Your task to perform on an android device: delete a single message in the gmail app Image 0: 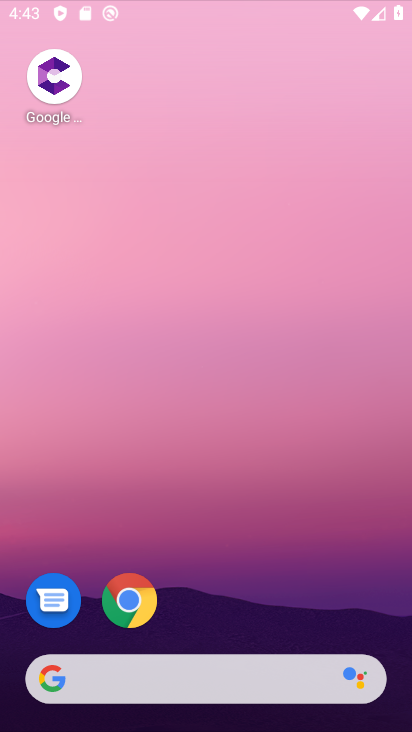
Step 0: click (65, 80)
Your task to perform on an android device: delete a single message in the gmail app Image 1: 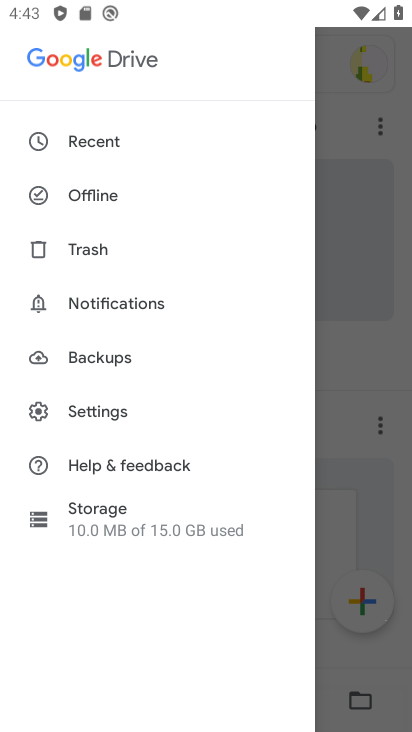
Step 1: press home button
Your task to perform on an android device: delete a single message in the gmail app Image 2: 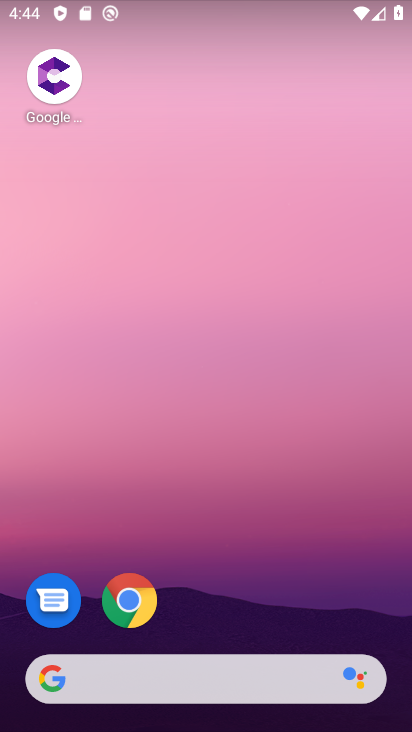
Step 2: drag from (233, 609) to (193, 55)
Your task to perform on an android device: delete a single message in the gmail app Image 3: 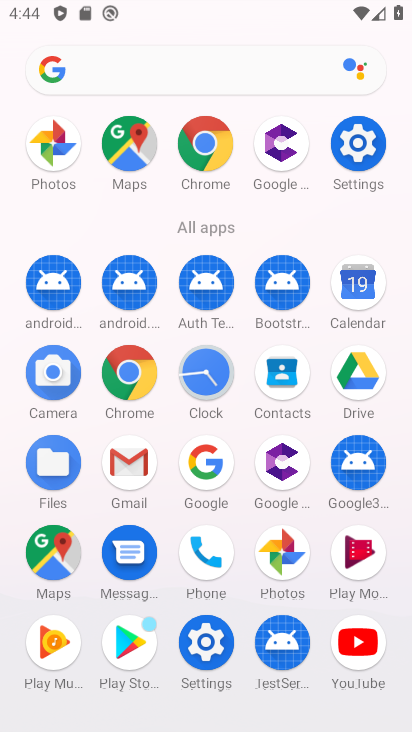
Step 3: click (129, 471)
Your task to perform on an android device: delete a single message in the gmail app Image 4: 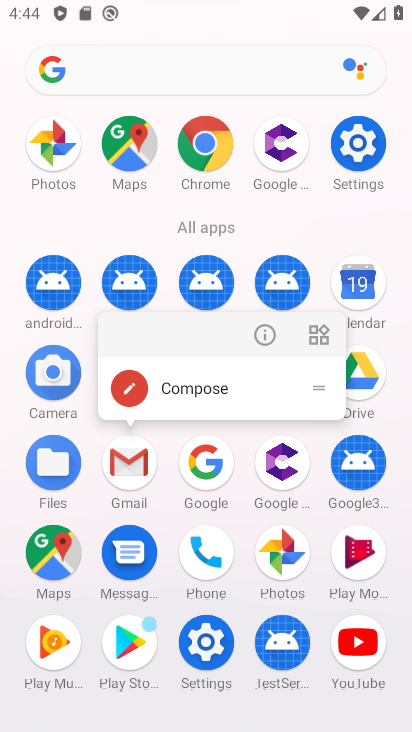
Step 4: click (128, 471)
Your task to perform on an android device: delete a single message in the gmail app Image 5: 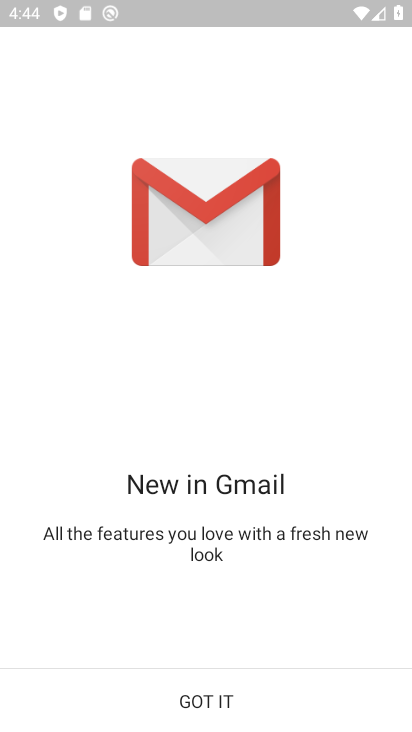
Step 5: click (172, 692)
Your task to perform on an android device: delete a single message in the gmail app Image 6: 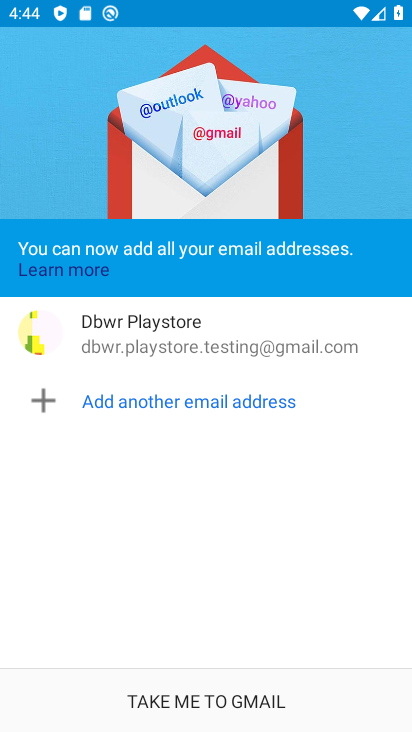
Step 6: click (191, 694)
Your task to perform on an android device: delete a single message in the gmail app Image 7: 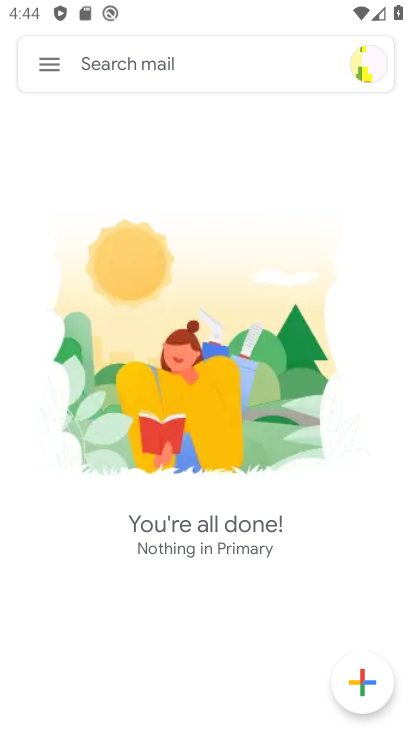
Step 7: click (49, 59)
Your task to perform on an android device: delete a single message in the gmail app Image 8: 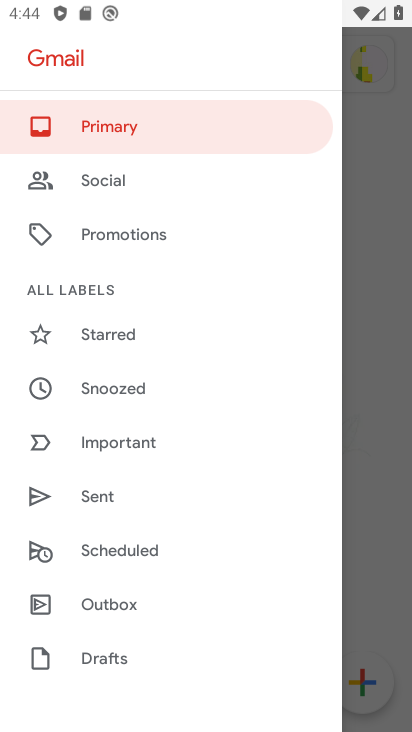
Step 8: drag from (222, 631) to (151, 133)
Your task to perform on an android device: delete a single message in the gmail app Image 9: 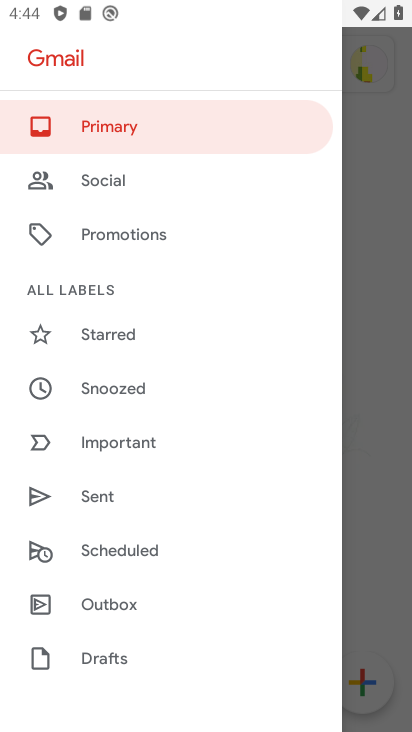
Step 9: drag from (132, 641) to (46, 96)
Your task to perform on an android device: delete a single message in the gmail app Image 10: 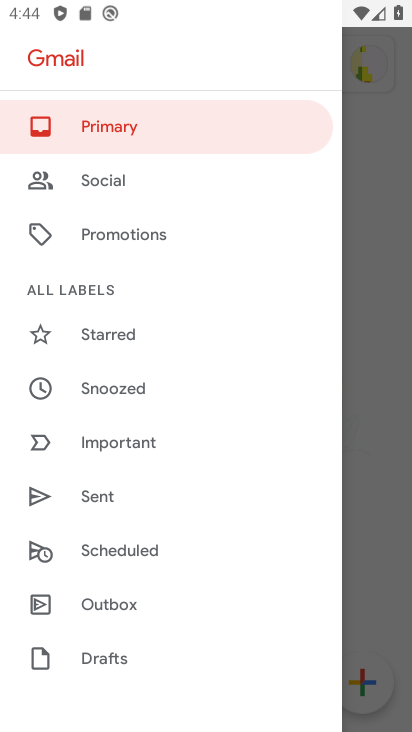
Step 10: drag from (140, 665) to (95, 195)
Your task to perform on an android device: delete a single message in the gmail app Image 11: 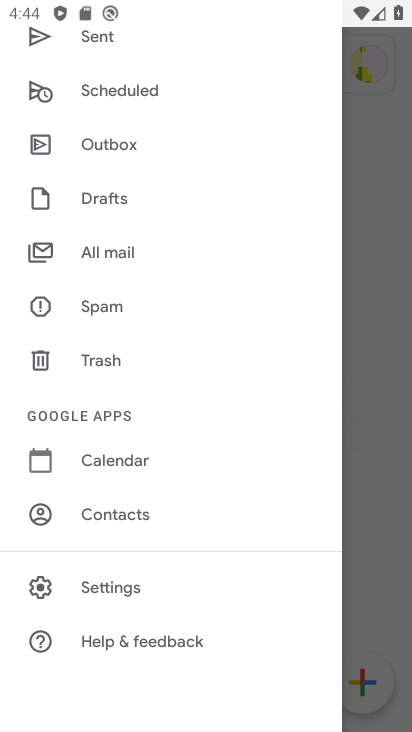
Step 11: click (94, 248)
Your task to perform on an android device: delete a single message in the gmail app Image 12: 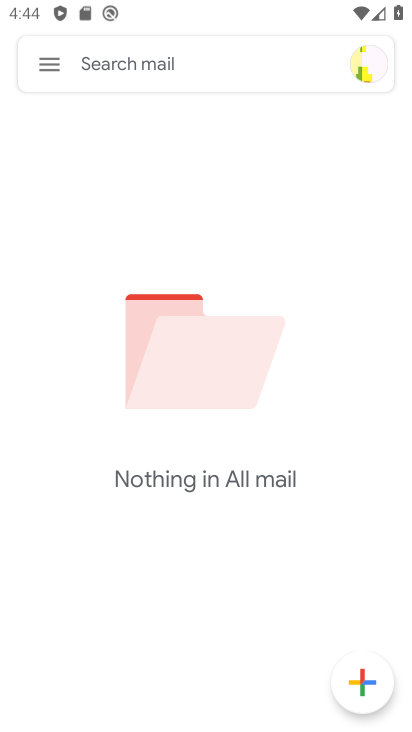
Step 12: task complete